Your task to perform on an android device: Go to accessibility settings Image 0: 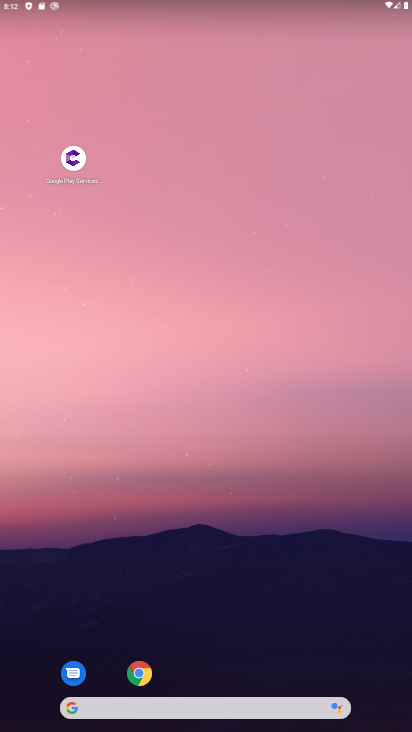
Step 0: drag from (192, 586) to (163, 274)
Your task to perform on an android device: Go to accessibility settings Image 1: 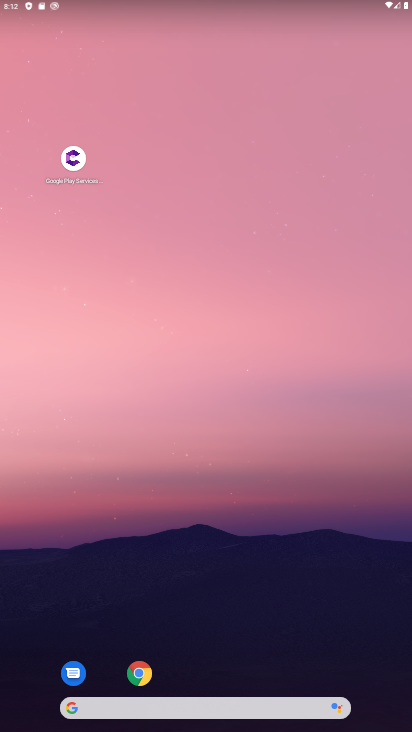
Step 1: drag from (218, 690) to (212, 246)
Your task to perform on an android device: Go to accessibility settings Image 2: 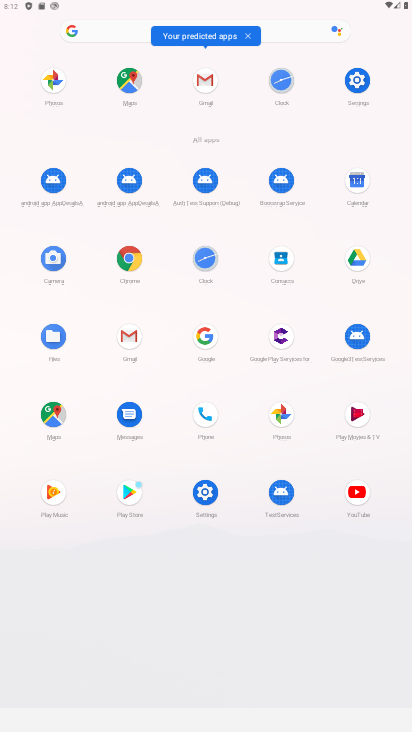
Step 2: click (206, 497)
Your task to perform on an android device: Go to accessibility settings Image 3: 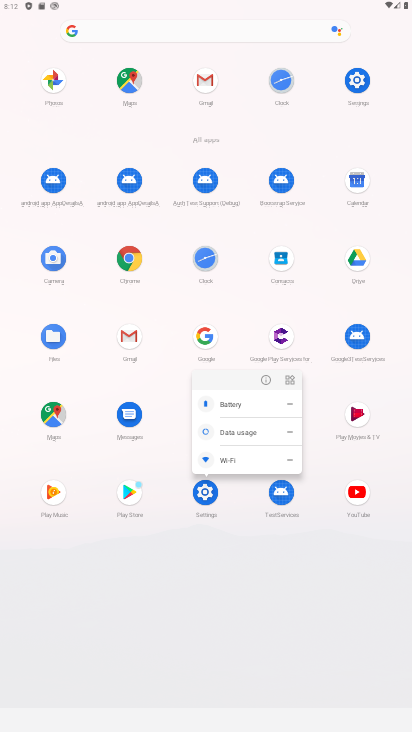
Step 3: click (200, 494)
Your task to perform on an android device: Go to accessibility settings Image 4: 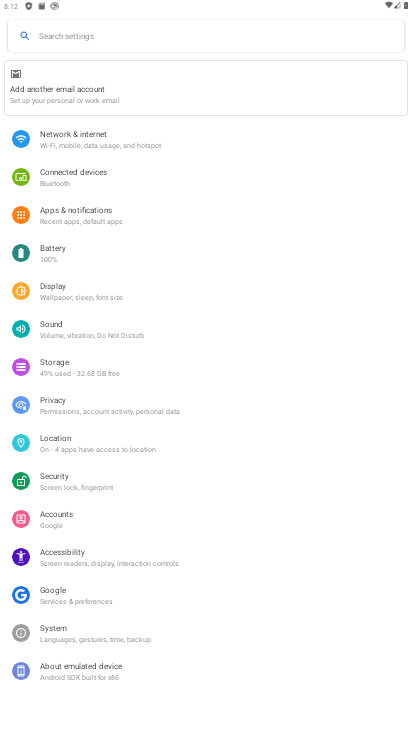
Step 4: click (65, 559)
Your task to perform on an android device: Go to accessibility settings Image 5: 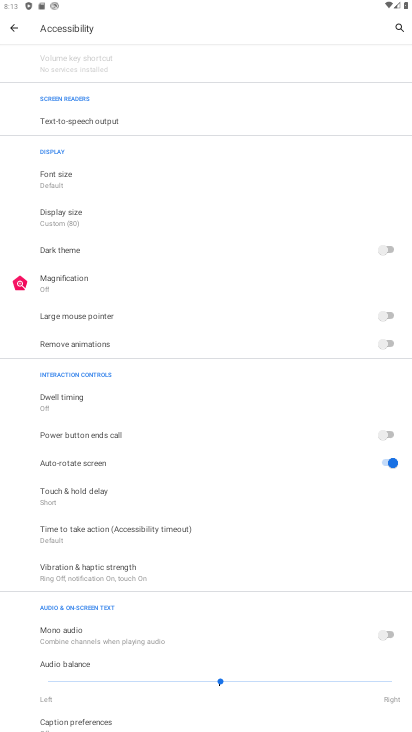
Step 5: task complete